Your task to perform on an android device: Open location settings Image 0: 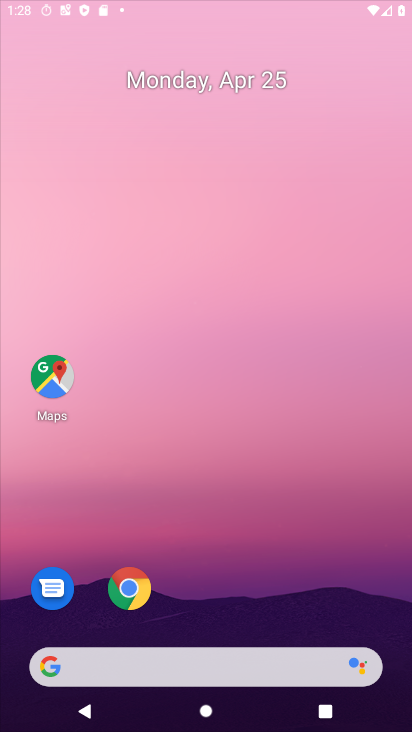
Step 0: click (330, 212)
Your task to perform on an android device: Open location settings Image 1: 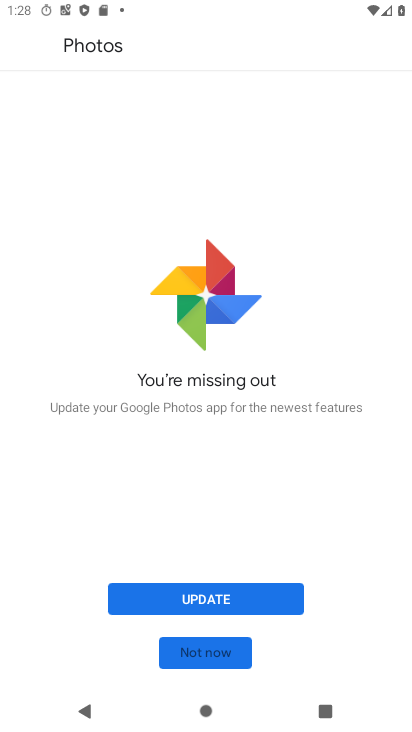
Step 1: press home button
Your task to perform on an android device: Open location settings Image 2: 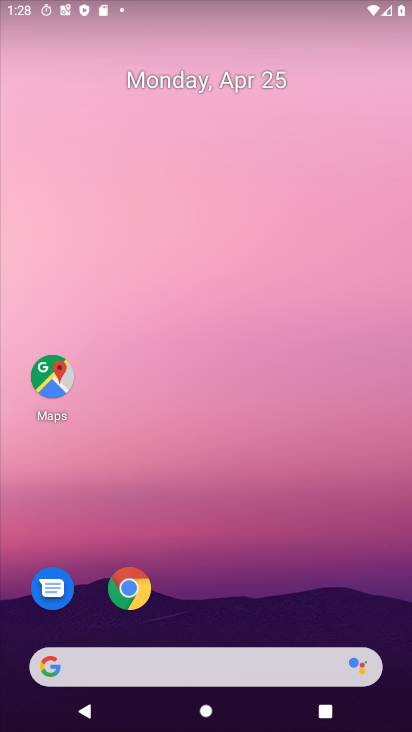
Step 2: drag from (250, 524) to (291, 113)
Your task to perform on an android device: Open location settings Image 3: 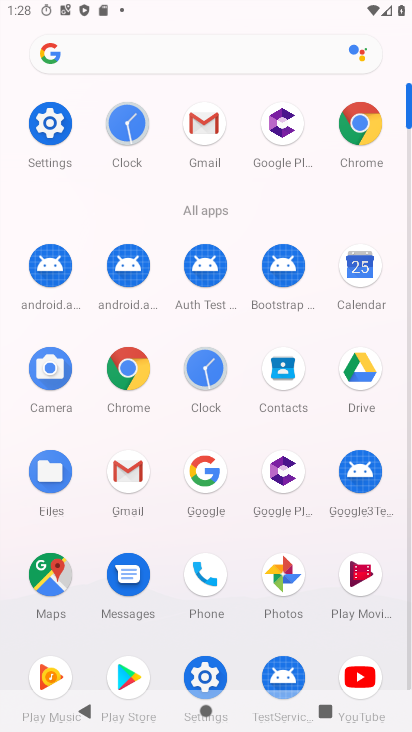
Step 3: click (203, 672)
Your task to perform on an android device: Open location settings Image 4: 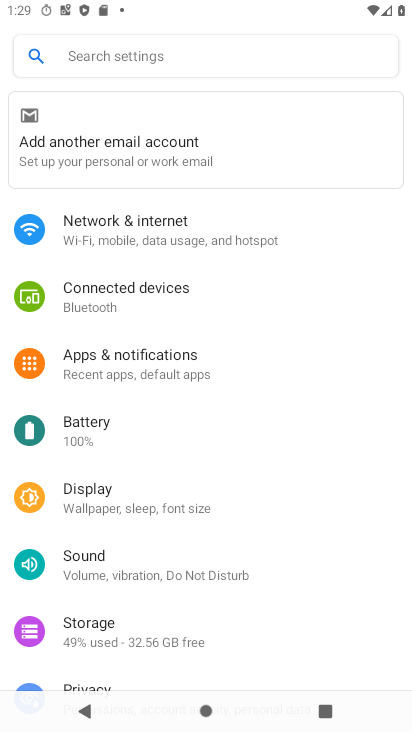
Step 4: drag from (174, 566) to (220, 305)
Your task to perform on an android device: Open location settings Image 5: 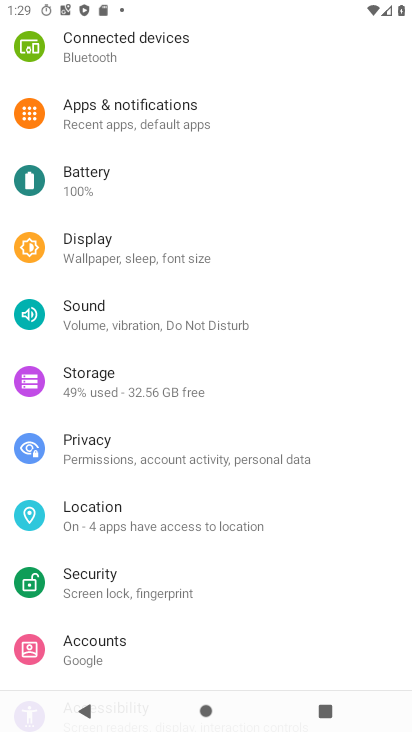
Step 5: click (166, 508)
Your task to perform on an android device: Open location settings Image 6: 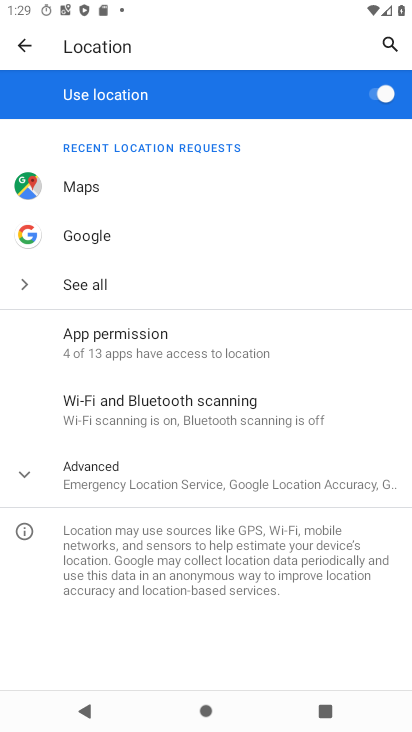
Step 6: click (177, 486)
Your task to perform on an android device: Open location settings Image 7: 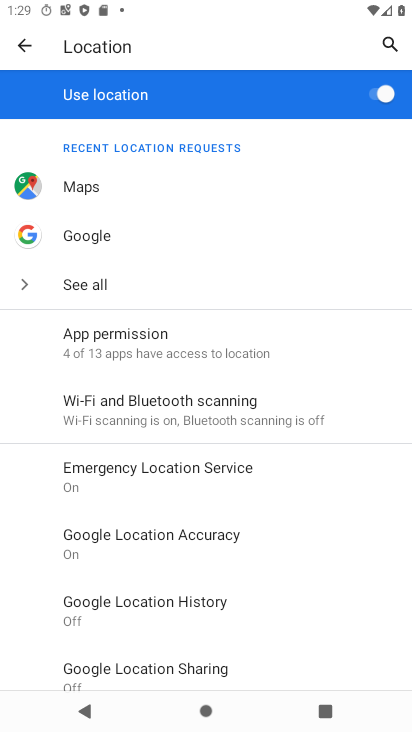
Step 7: task complete